Your task to perform on an android device: turn off location history Image 0: 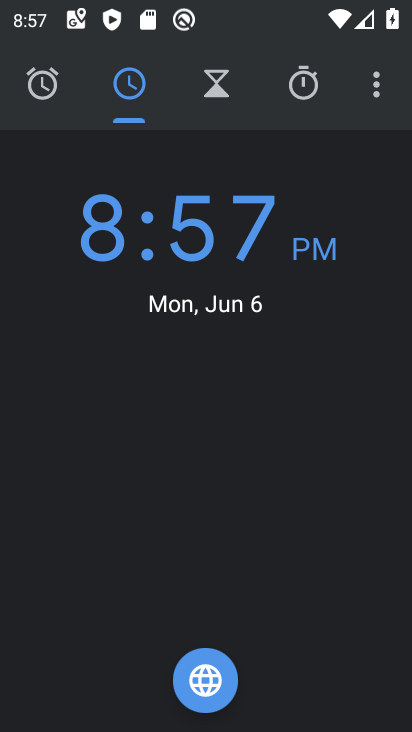
Step 0: press home button
Your task to perform on an android device: turn off location history Image 1: 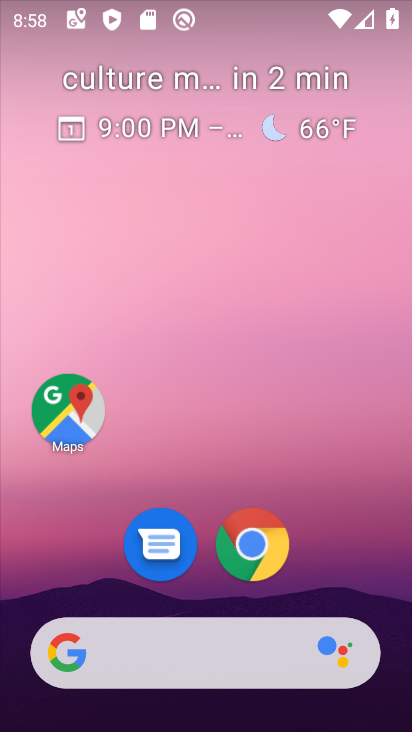
Step 1: drag from (215, 590) to (213, 210)
Your task to perform on an android device: turn off location history Image 2: 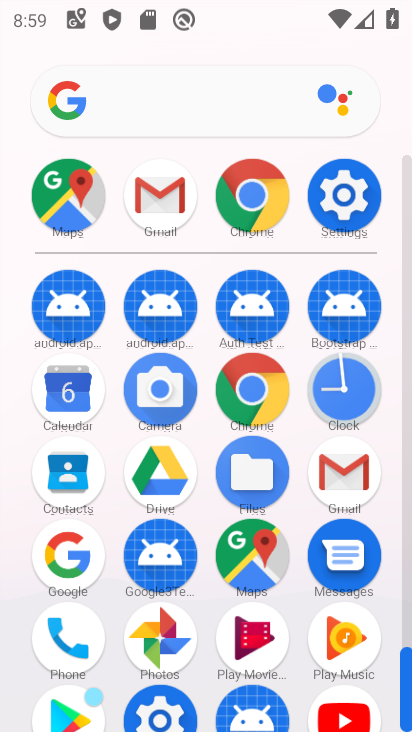
Step 2: click (369, 200)
Your task to perform on an android device: turn off location history Image 3: 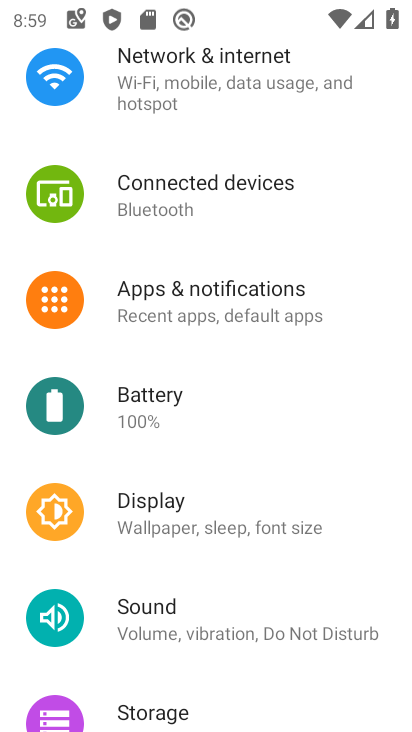
Step 3: drag from (304, 680) to (297, 339)
Your task to perform on an android device: turn off location history Image 4: 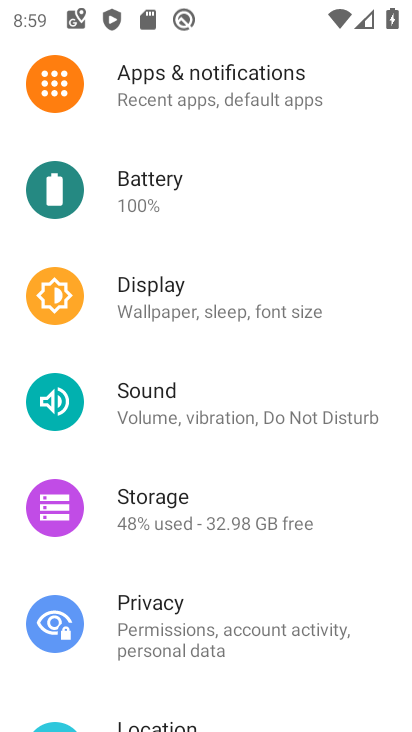
Step 4: drag from (203, 672) to (202, 280)
Your task to perform on an android device: turn off location history Image 5: 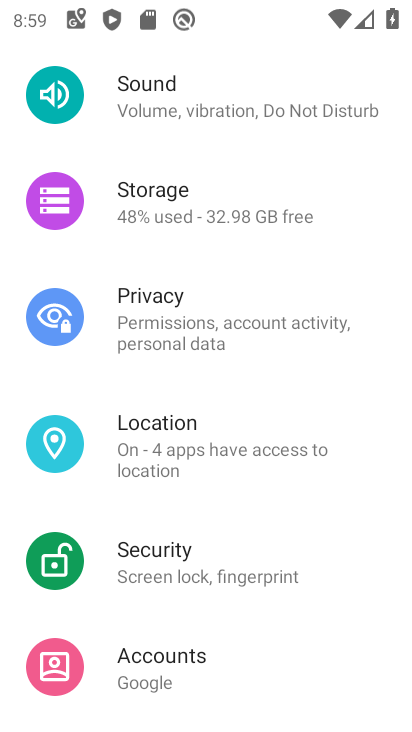
Step 5: click (179, 456)
Your task to perform on an android device: turn off location history Image 6: 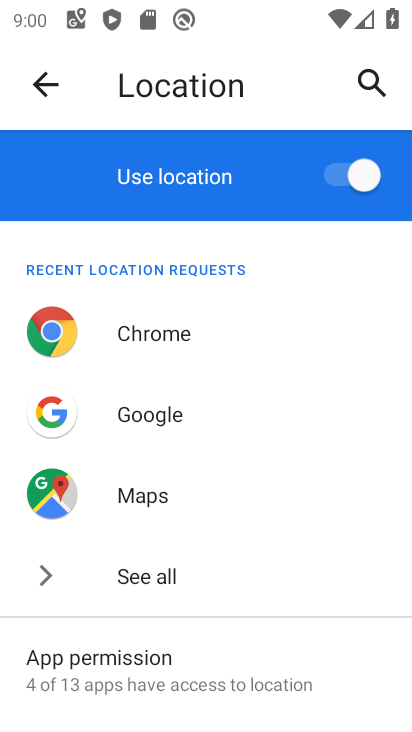
Step 6: drag from (256, 498) to (218, 166)
Your task to perform on an android device: turn off location history Image 7: 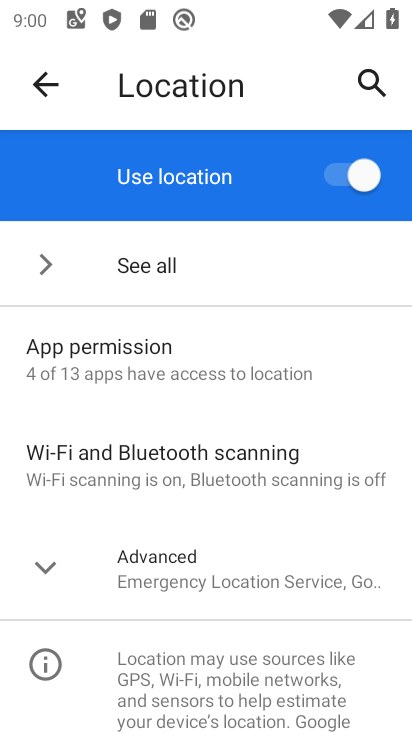
Step 7: click (46, 556)
Your task to perform on an android device: turn off location history Image 8: 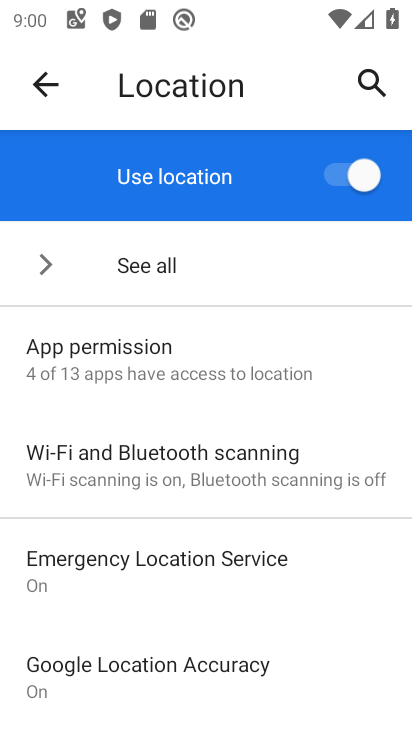
Step 8: task complete